Your task to perform on an android device: open app "Move to iOS" (install if not already installed) Image 0: 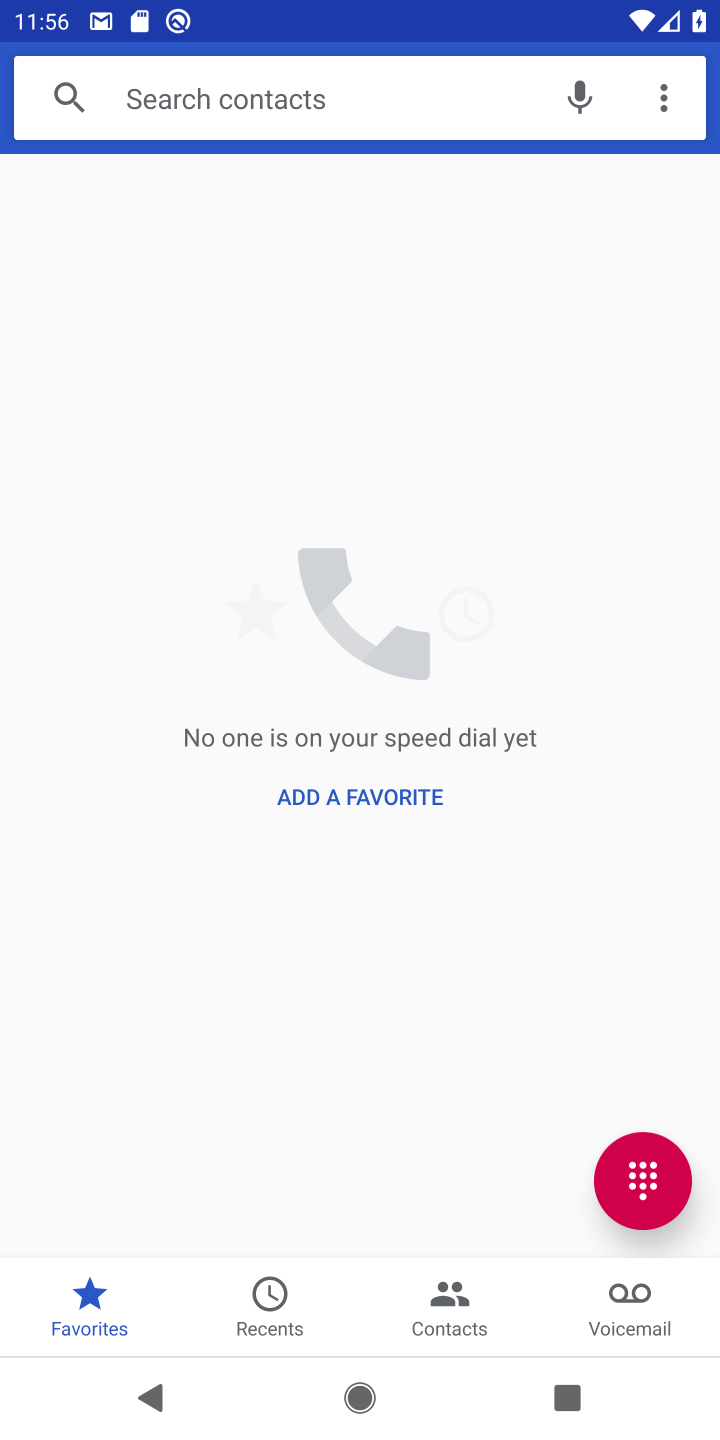
Step 0: press home button
Your task to perform on an android device: open app "Move to iOS" (install if not already installed) Image 1: 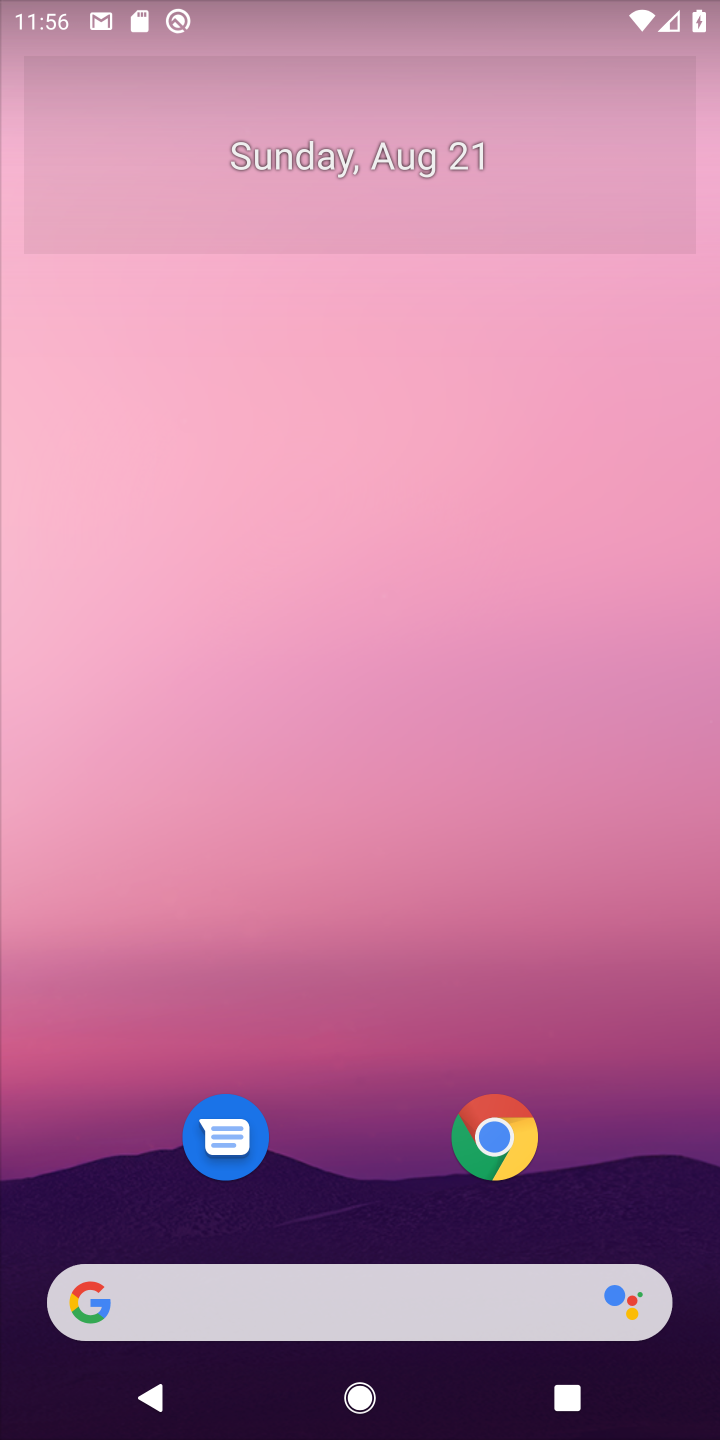
Step 1: drag from (676, 1203) to (608, 143)
Your task to perform on an android device: open app "Move to iOS" (install if not already installed) Image 2: 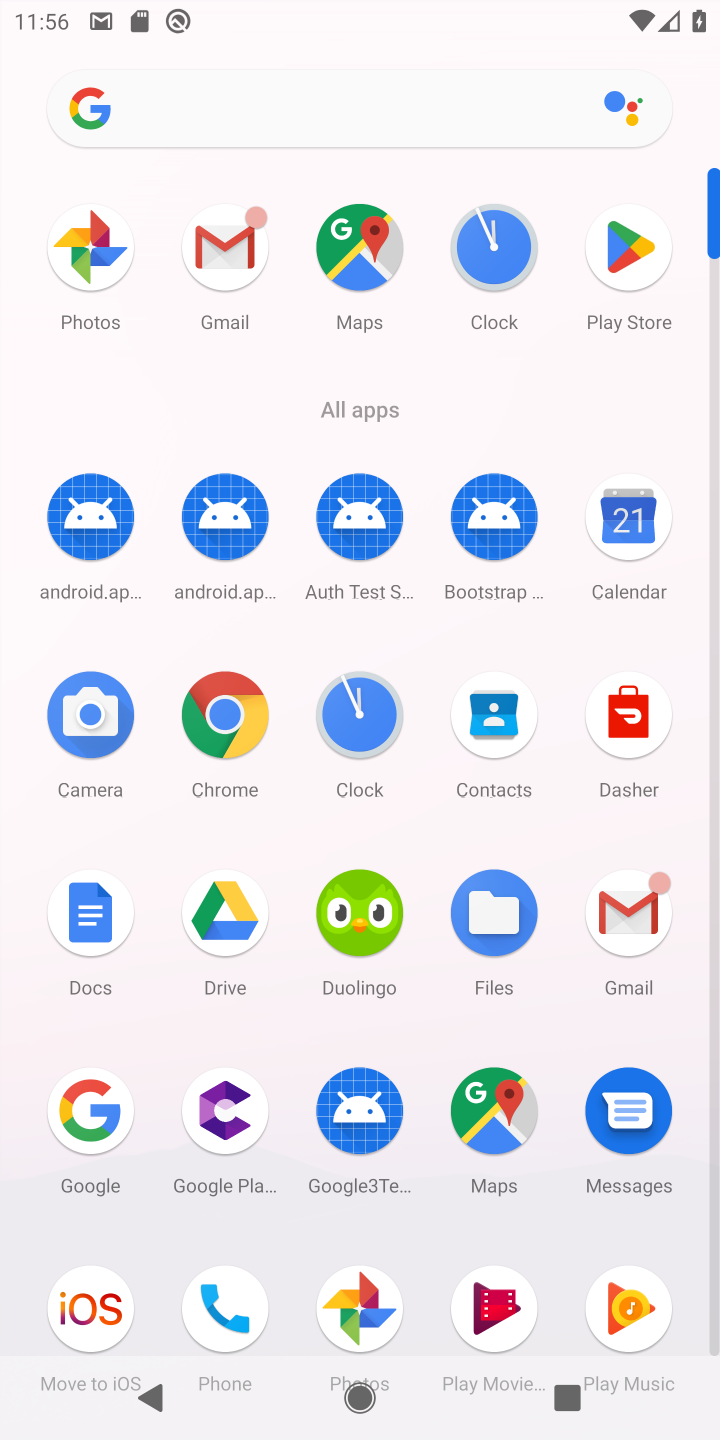
Step 2: drag from (286, 1242) to (269, 643)
Your task to perform on an android device: open app "Move to iOS" (install if not already installed) Image 3: 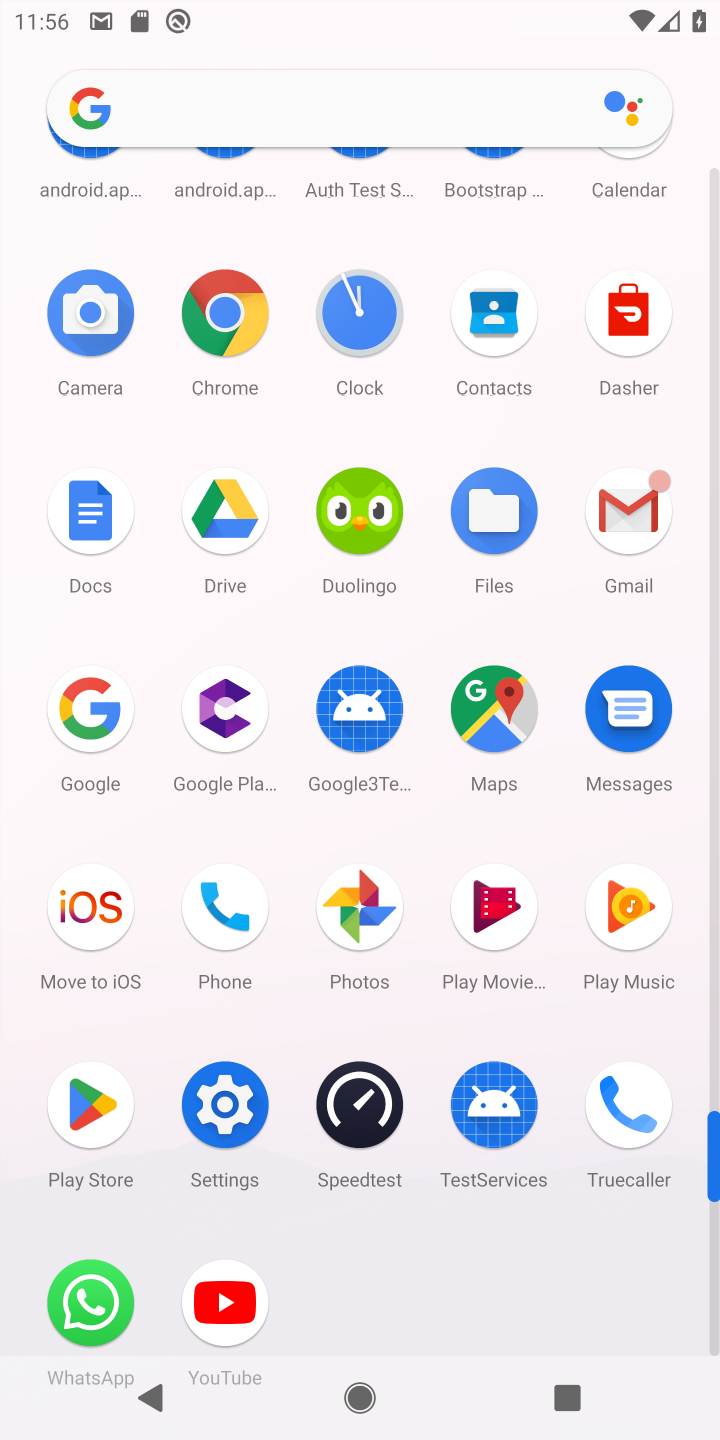
Step 3: click (91, 912)
Your task to perform on an android device: open app "Move to iOS" (install if not already installed) Image 4: 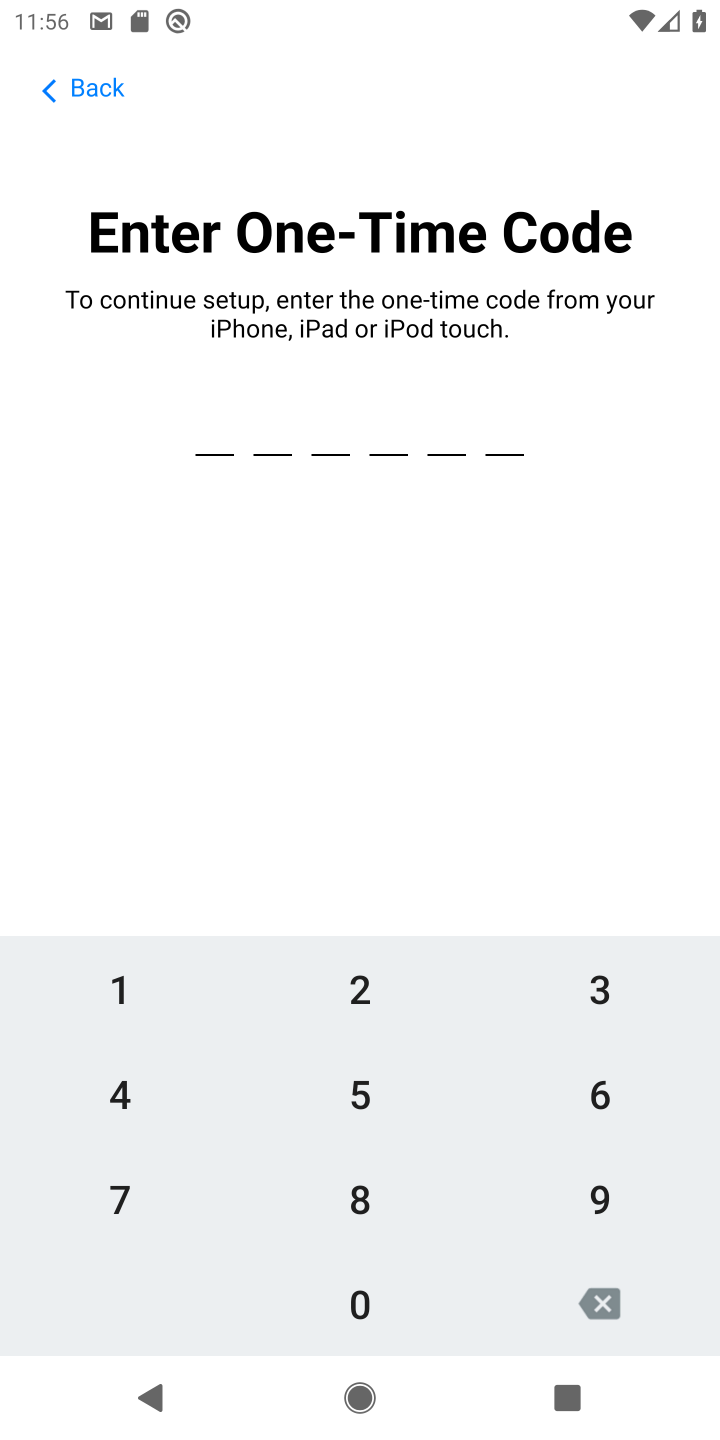
Step 4: task complete